Your task to perform on an android device: Open calendar and show me the second week of next month Image 0: 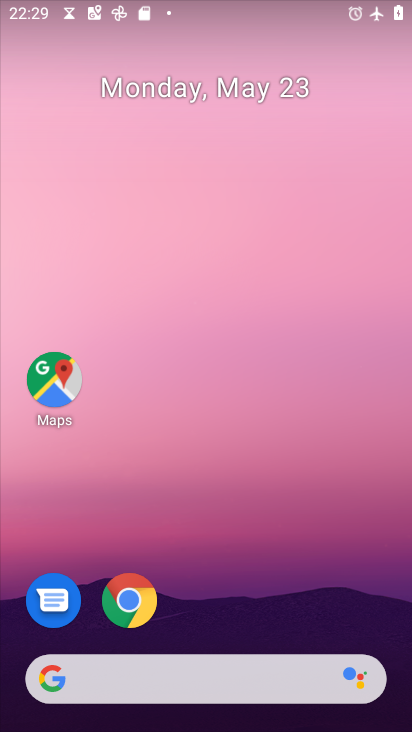
Step 0: drag from (262, 679) to (260, 250)
Your task to perform on an android device: Open calendar and show me the second week of next month Image 1: 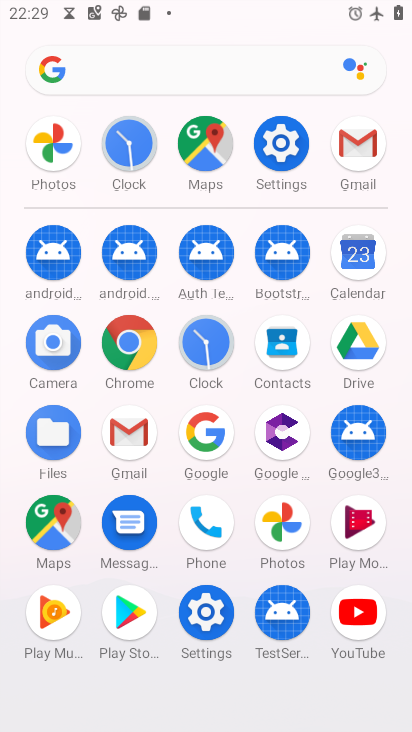
Step 1: click (358, 260)
Your task to perform on an android device: Open calendar and show me the second week of next month Image 2: 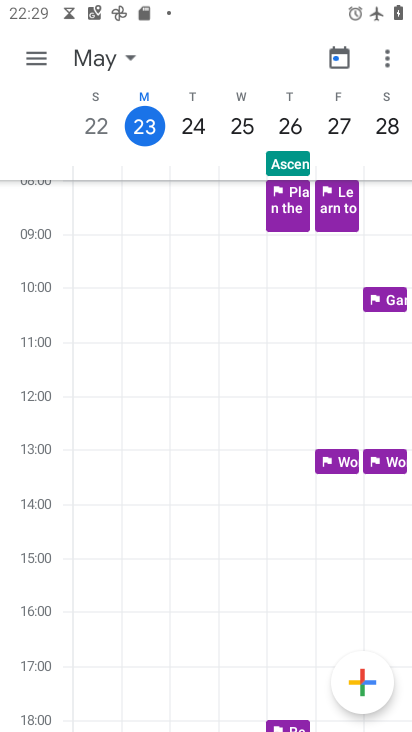
Step 2: click (131, 55)
Your task to perform on an android device: Open calendar and show me the second week of next month Image 3: 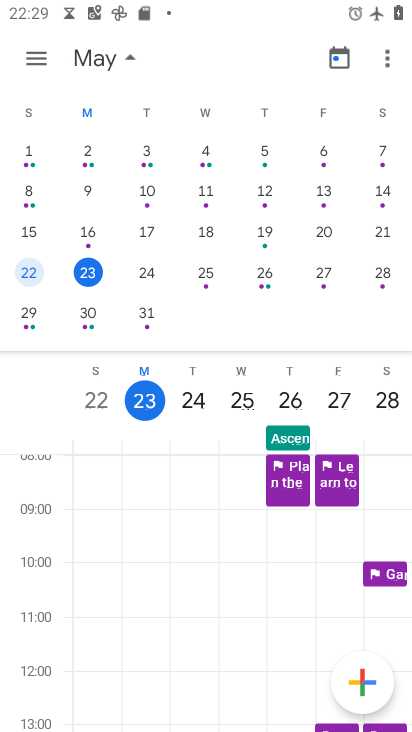
Step 3: drag from (356, 252) to (8, 218)
Your task to perform on an android device: Open calendar and show me the second week of next month Image 4: 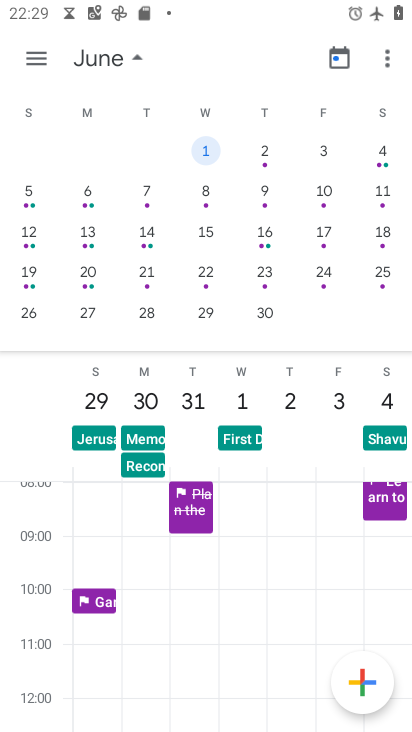
Step 4: click (89, 230)
Your task to perform on an android device: Open calendar and show me the second week of next month Image 5: 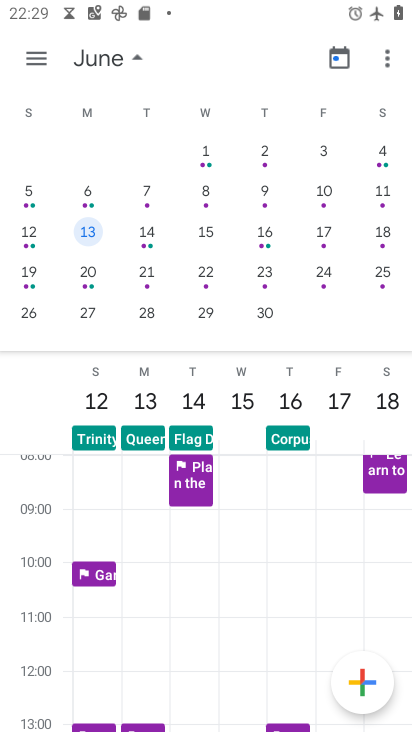
Step 5: click (39, 59)
Your task to perform on an android device: Open calendar and show me the second week of next month Image 6: 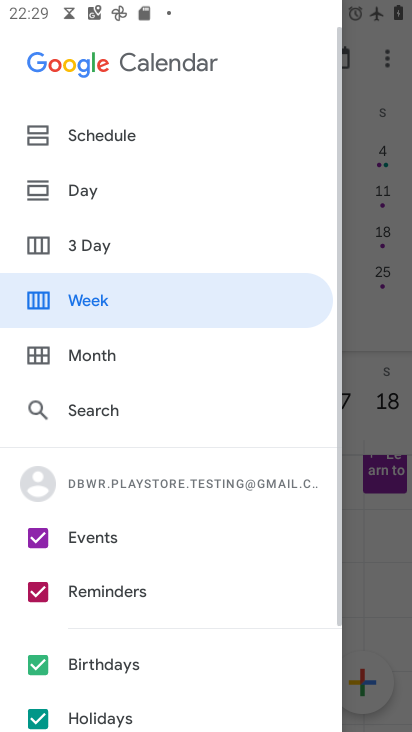
Step 6: click (87, 303)
Your task to perform on an android device: Open calendar and show me the second week of next month Image 7: 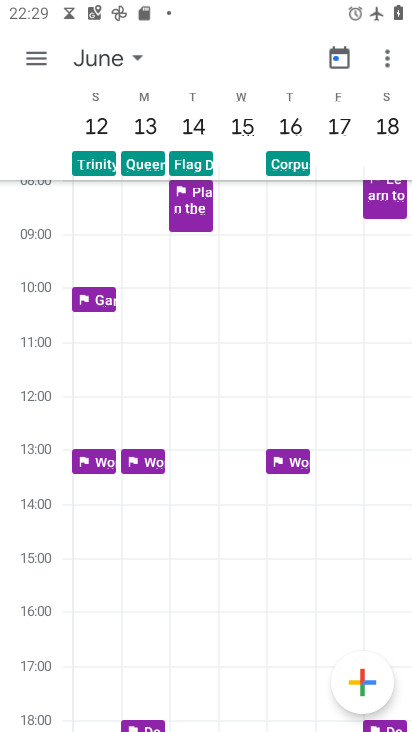
Step 7: task complete